Your task to perform on an android device: empty trash in the gmail app Image 0: 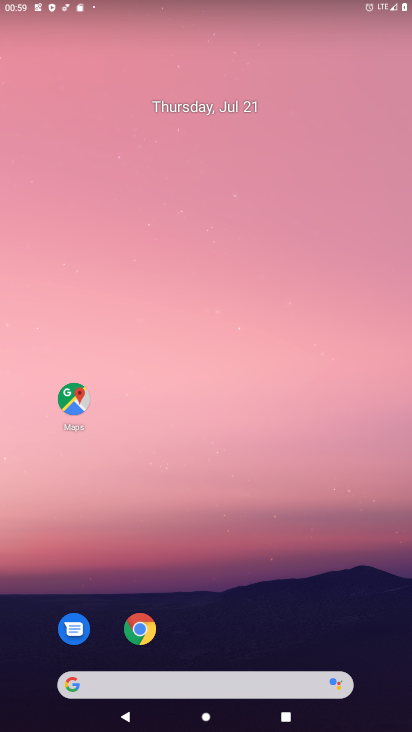
Step 0: drag from (351, 614) to (203, 75)
Your task to perform on an android device: empty trash in the gmail app Image 1: 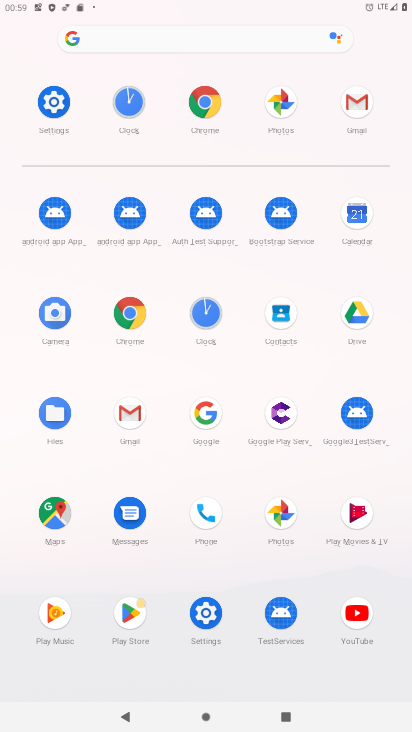
Step 1: click (359, 109)
Your task to perform on an android device: empty trash in the gmail app Image 2: 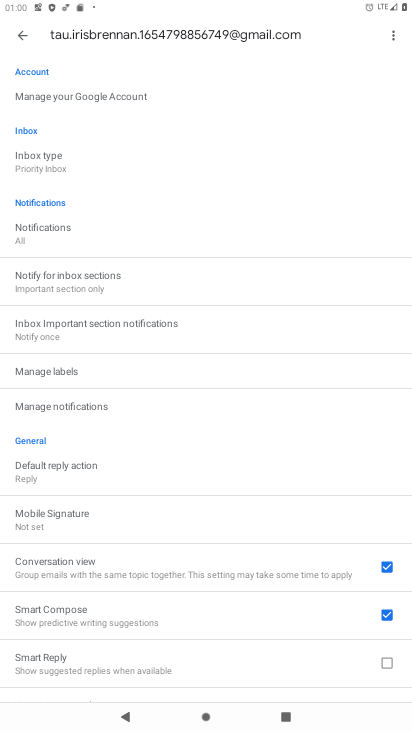
Step 2: click (26, 34)
Your task to perform on an android device: empty trash in the gmail app Image 3: 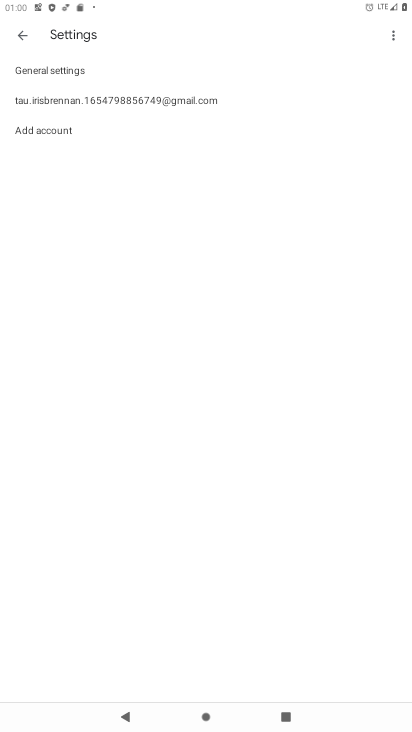
Step 3: click (26, 34)
Your task to perform on an android device: empty trash in the gmail app Image 4: 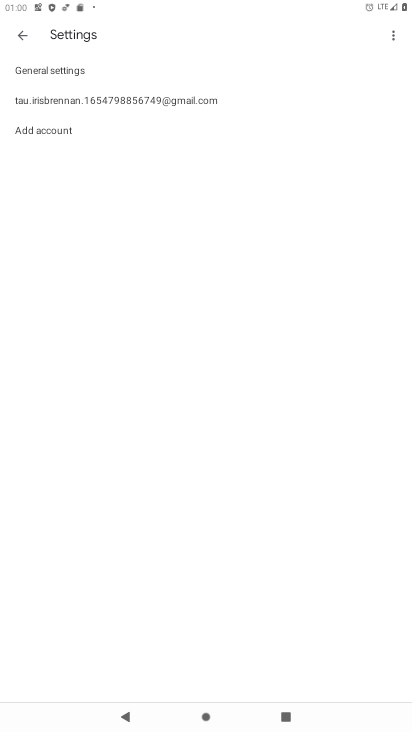
Step 4: click (26, 34)
Your task to perform on an android device: empty trash in the gmail app Image 5: 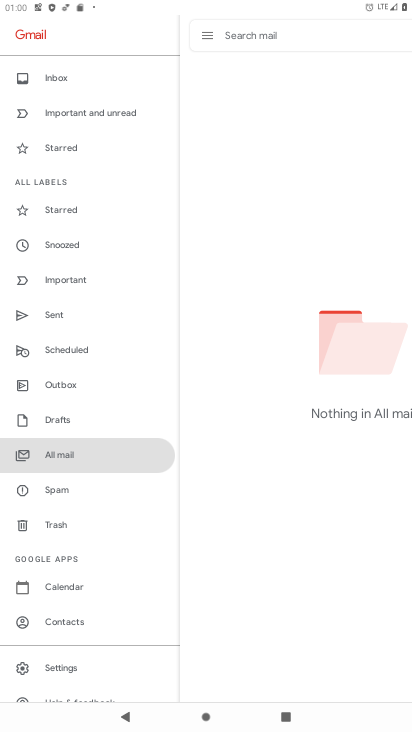
Step 5: click (72, 533)
Your task to perform on an android device: empty trash in the gmail app Image 6: 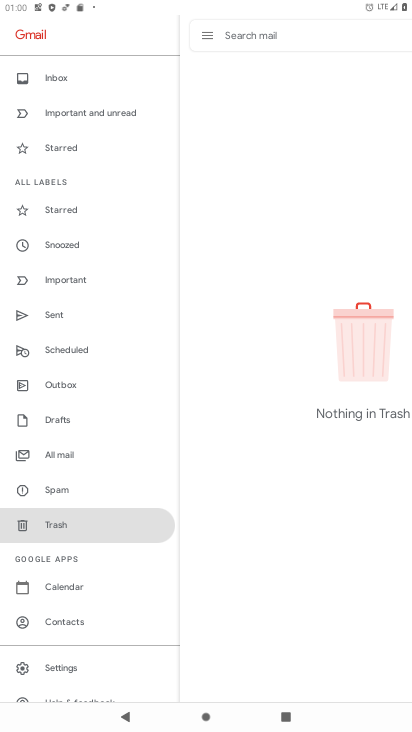
Step 6: task complete